Your task to perform on an android device: What's on my calendar tomorrow? Image 0: 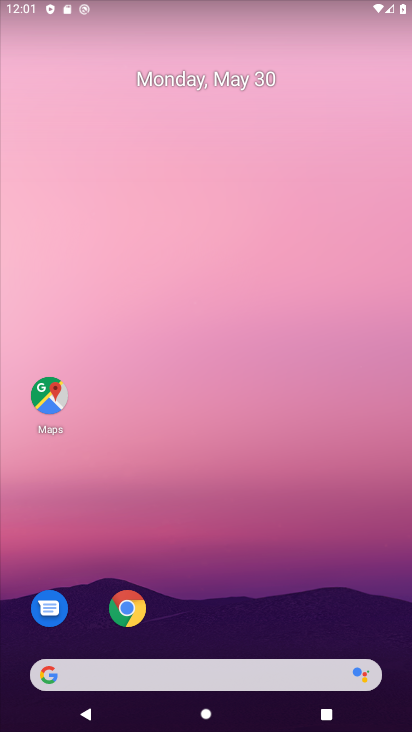
Step 0: drag from (289, 562) to (288, 70)
Your task to perform on an android device: What's on my calendar tomorrow? Image 1: 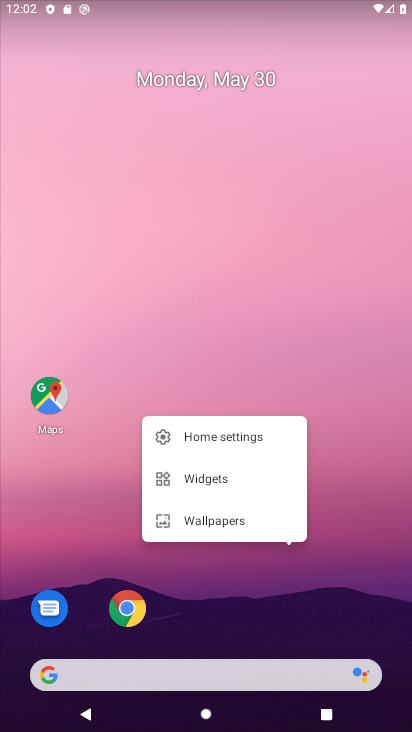
Step 1: click (234, 79)
Your task to perform on an android device: What's on my calendar tomorrow? Image 2: 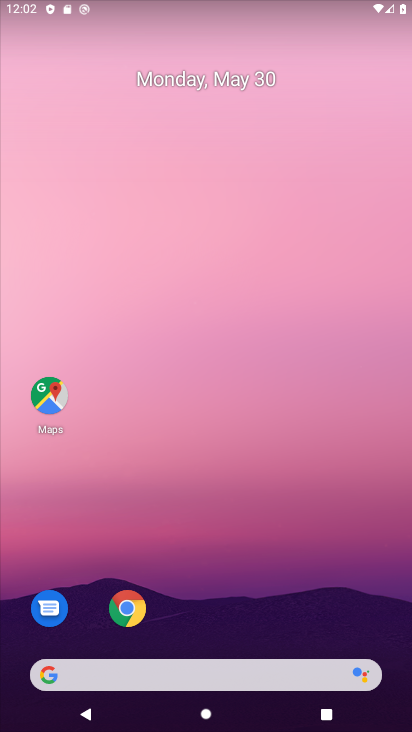
Step 2: click (229, 79)
Your task to perform on an android device: What's on my calendar tomorrow? Image 3: 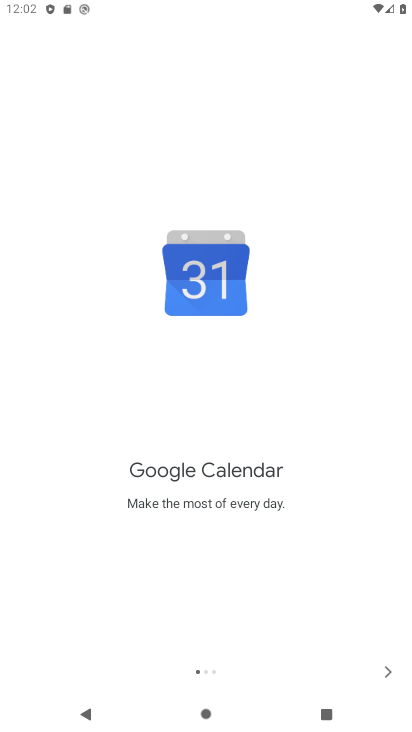
Step 3: click (387, 670)
Your task to perform on an android device: What's on my calendar tomorrow? Image 4: 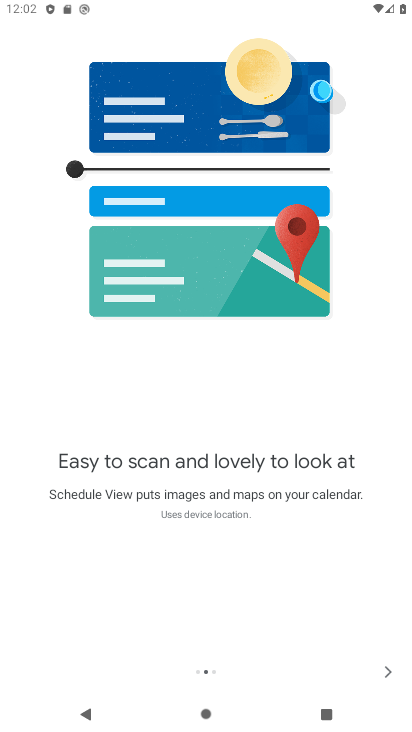
Step 4: click (387, 670)
Your task to perform on an android device: What's on my calendar tomorrow? Image 5: 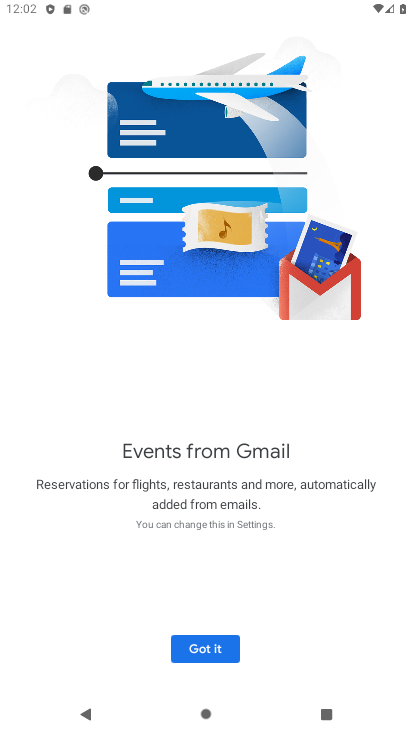
Step 5: click (212, 657)
Your task to perform on an android device: What's on my calendar tomorrow? Image 6: 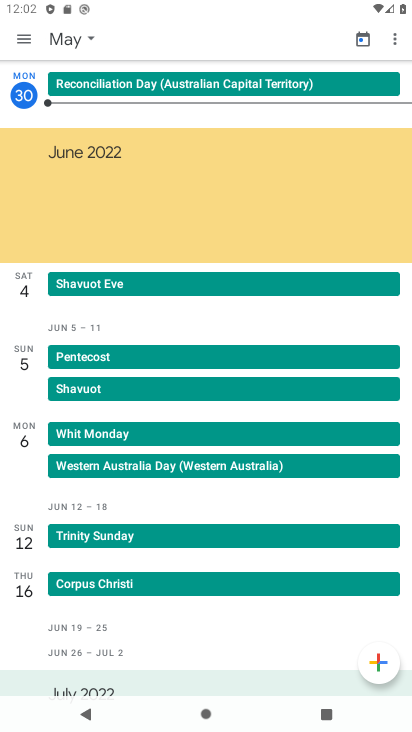
Step 6: click (25, 39)
Your task to perform on an android device: What's on my calendar tomorrow? Image 7: 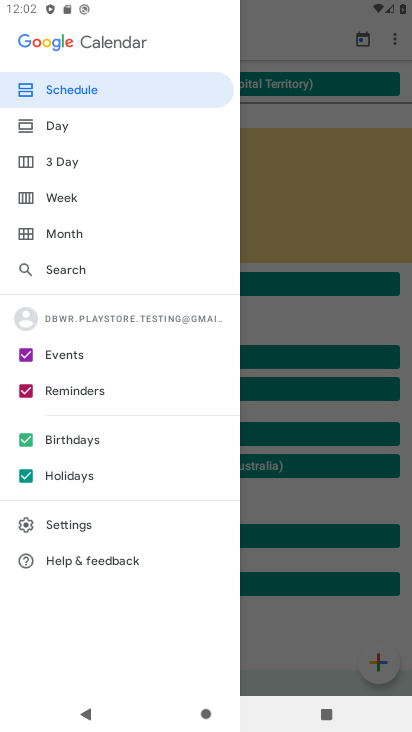
Step 7: click (95, 86)
Your task to perform on an android device: What's on my calendar tomorrow? Image 8: 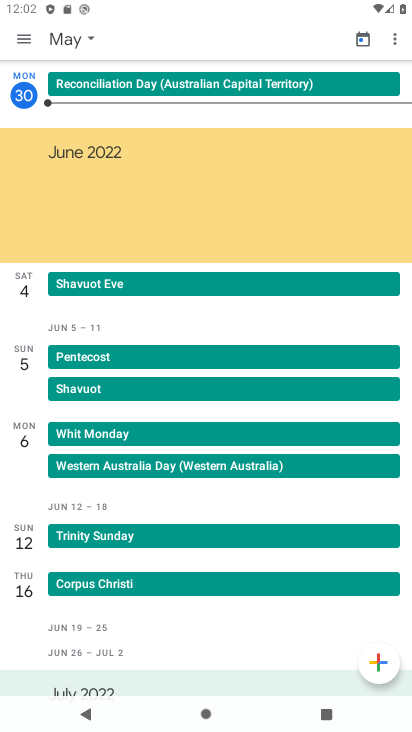
Step 8: click (84, 36)
Your task to perform on an android device: What's on my calendar tomorrow? Image 9: 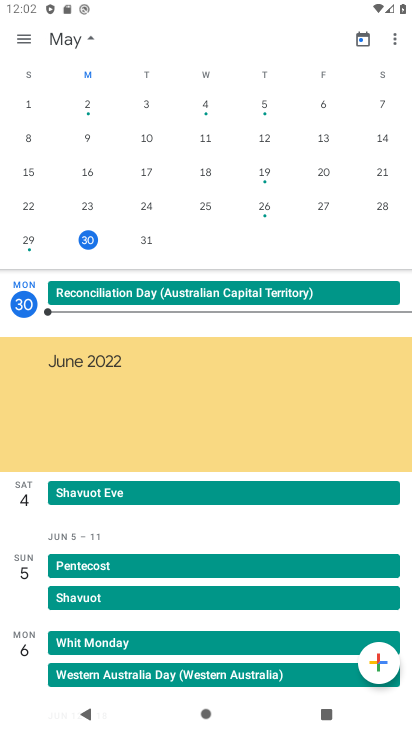
Step 9: click (152, 240)
Your task to perform on an android device: What's on my calendar tomorrow? Image 10: 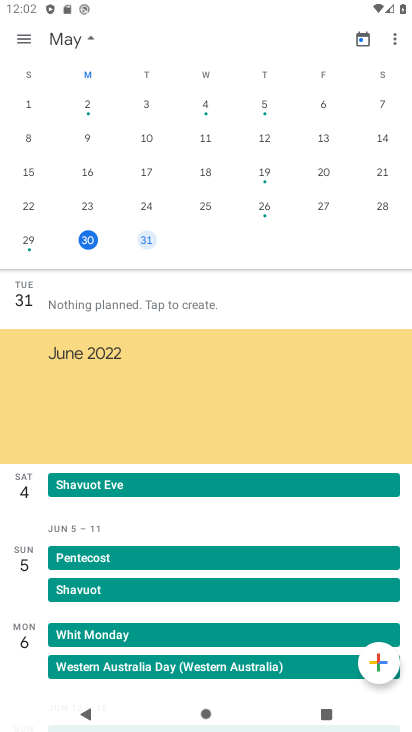
Step 10: task complete